Your task to perform on an android device: stop showing notifications on the lock screen Image 0: 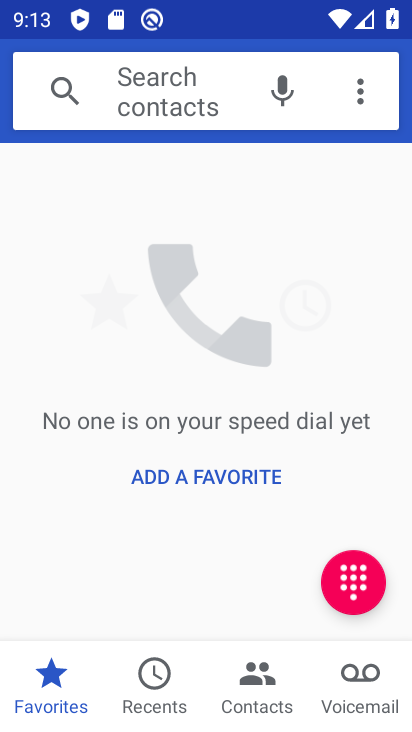
Step 0: press home button
Your task to perform on an android device: stop showing notifications on the lock screen Image 1: 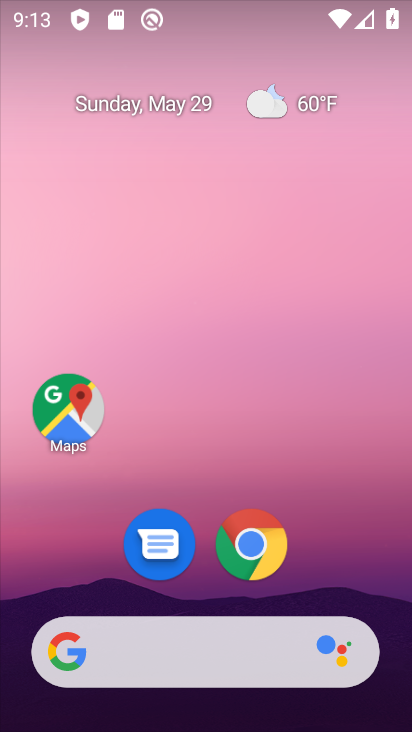
Step 1: drag from (384, 466) to (345, 122)
Your task to perform on an android device: stop showing notifications on the lock screen Image 2: 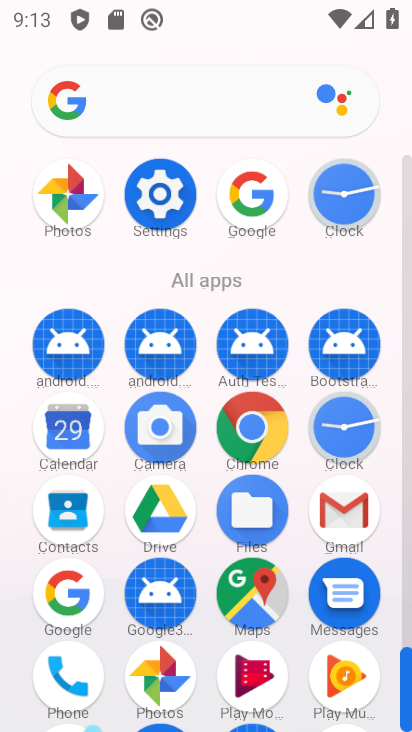
Step 2: click (167, 193)
Your task to perform on an android device: stop showing notifications on the lock screen Image 3: 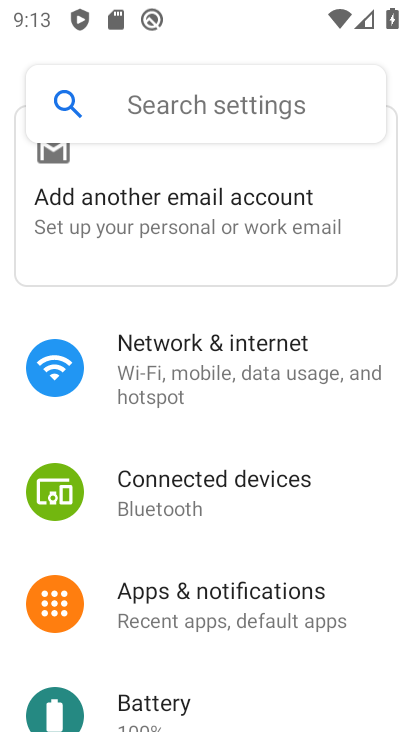
Step 3: click (220, 617)
Your task to perform on an android device: stop showing notifications on the lock screen Image 4: 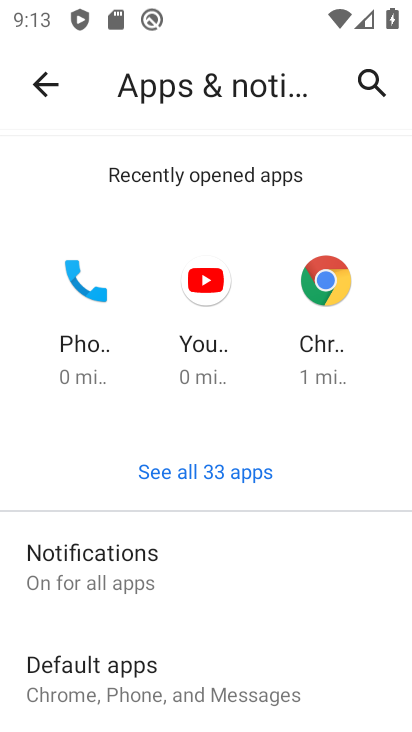
Step 4: click (135, 541)
Your task to perform on an android device: stop showing notifications on the lock screen Image 5: 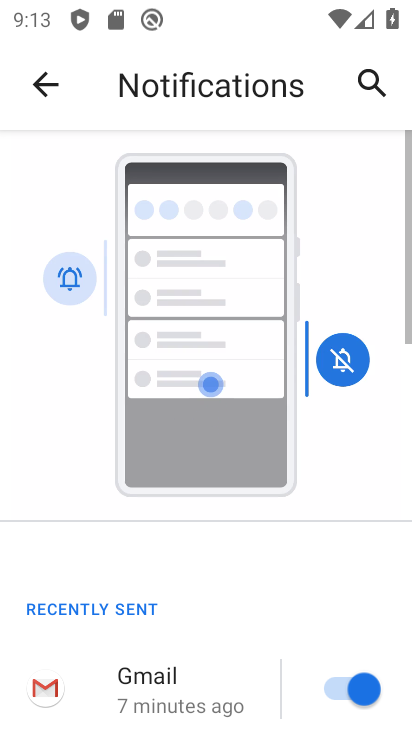
Step 5: drag from (179, 622) to (237, 70)
Your task to perform on an android device: stop showing notifications on the lock screen Image 6: 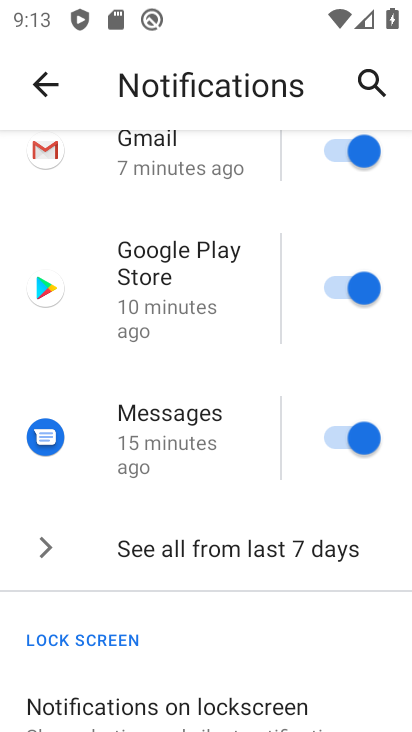
Step 6: drag from (204, 676) to (187, 439)
Your task to perform on an android device: stop showing notifications on the lock screen Image 7: 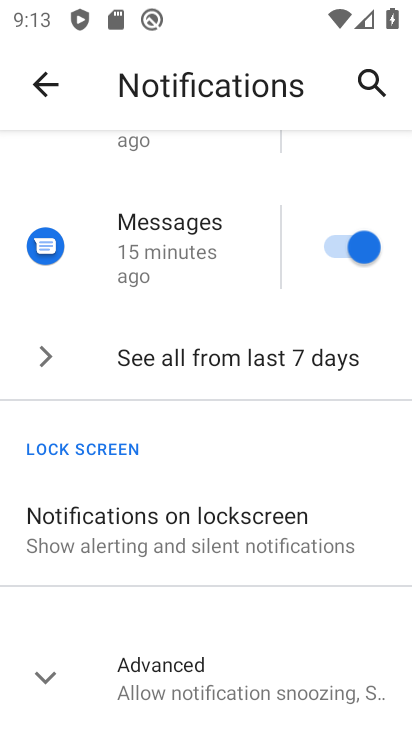
Step 7: click (178, 554)
Your task to perform on an android device: stop showing notifications on the lock screen Image 8: 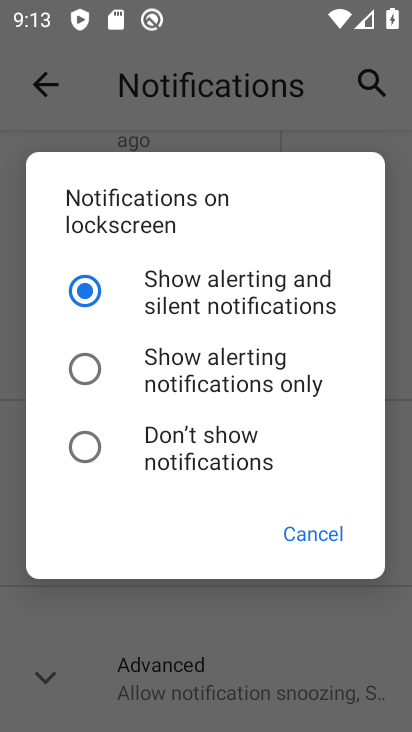
Step 8: click (82, 453)
Your task to perform on an android device: stop showing notifications on the lock screen Image 9: 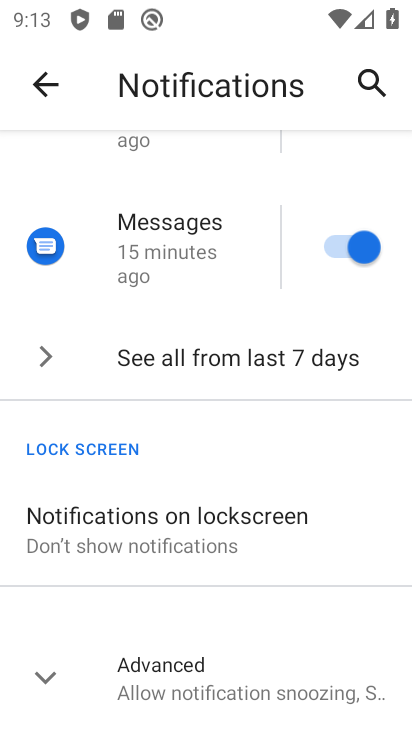
Step 9: task complete